Your task to perform on an android device: turn off translation in the chrome app Image 0: 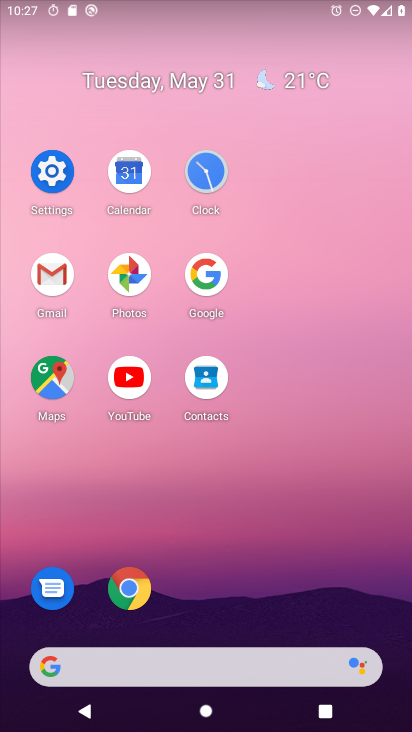
Step 0: click (149, 587)
Your task to perform on an android device: turn off translation in the chrome app Image 1: 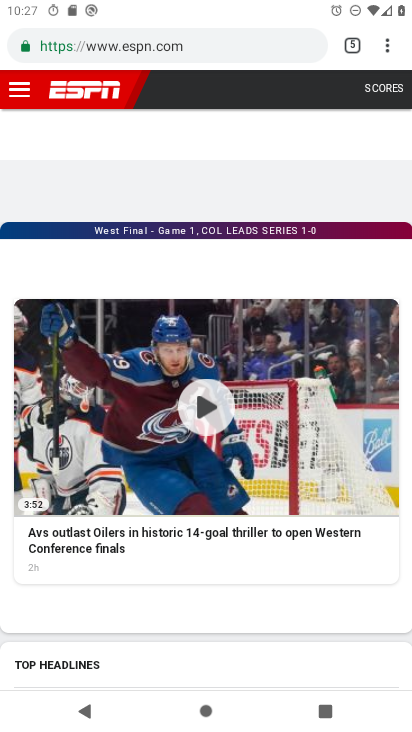
Step 1: click (387, 44)
Your task to perform on an android device: turn off translation in the chrome app Image 2: 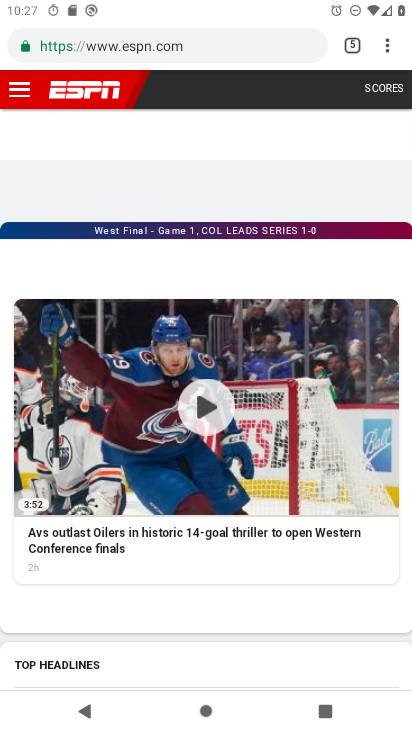
Step 2: click (398, 46)
Your task to perform on an android device: turn off translation in the chrome app Image 3: 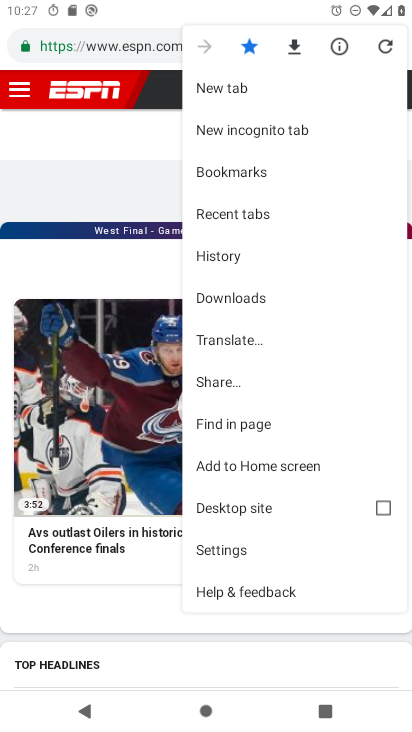
Step 3: click (247, 539)
Your task to perform on an android device: turn off translation in the chrome app Image 4: 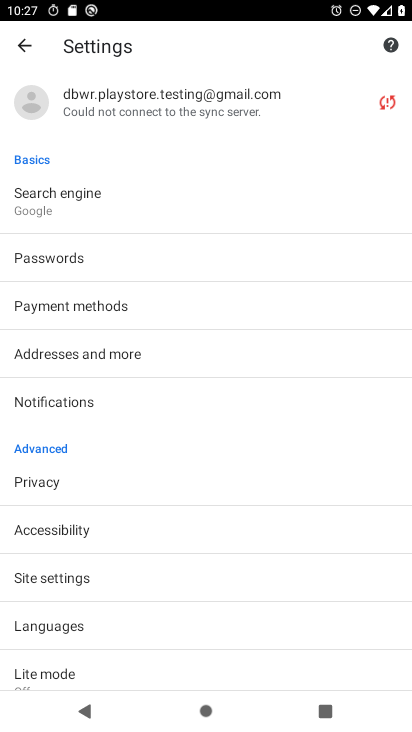
Step 4: click (143, 627)
Your task to perform on an android device: turn off translation in the chrome app Image 5: 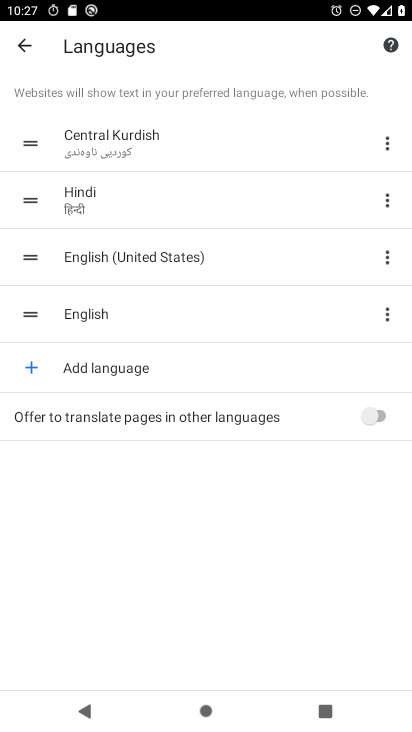
Step 5: task complete